Your task to perform on an android device: turn off airplane mode Image 0: 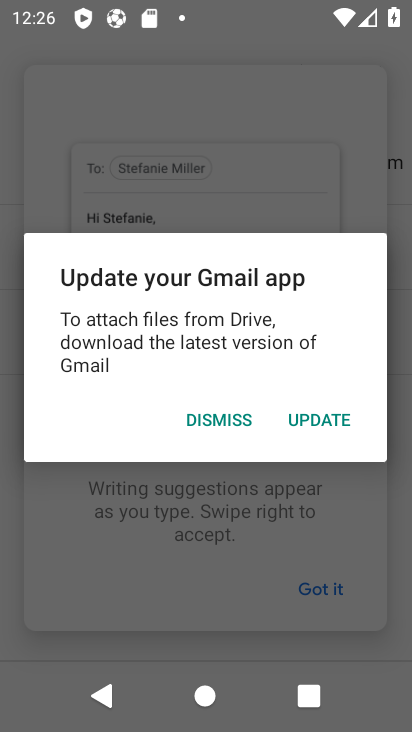
Step 0: press home button
Your task to perform on an android device: turn off airplane mode Image 1: 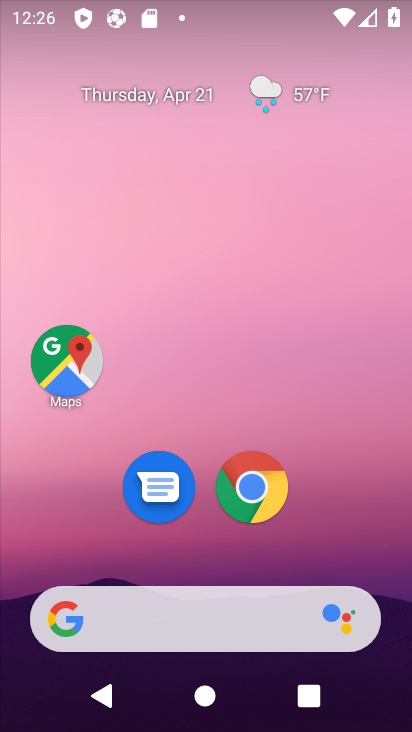
Step 1: drag from (381, 546) to (346, 130)
Your task to perform on an android device: turn off airplane mode Image 2: 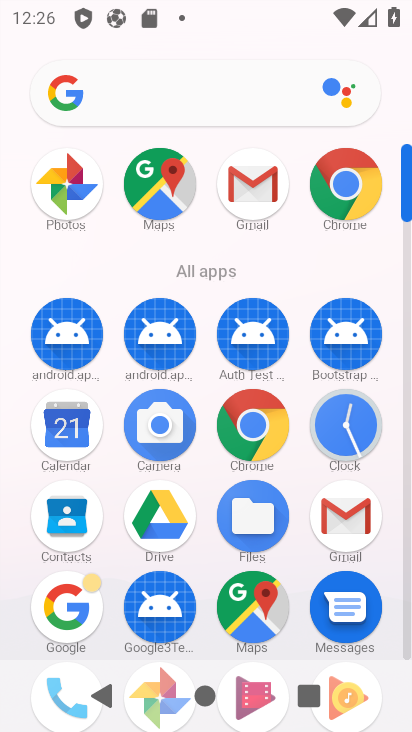
Step 2: drag from (294, 478) to (289, 254)
Your task to perform on an android device: turn off airplane mode Image 3: 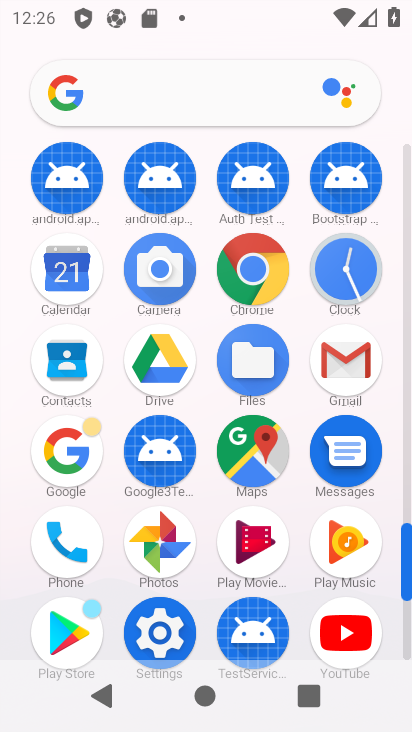
Step 3: click (146, 632)
Your task to perform on an android device: turn off airplane mode Image 4: 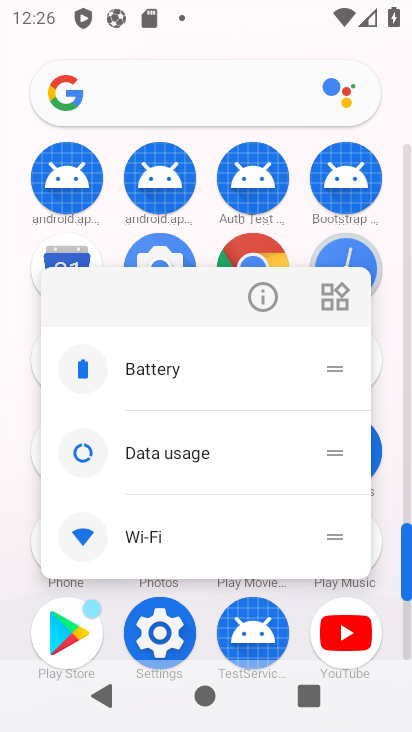
Step 4: click (144, 633)
Your task to perform on an android device: turn off airplane mode Image 5: 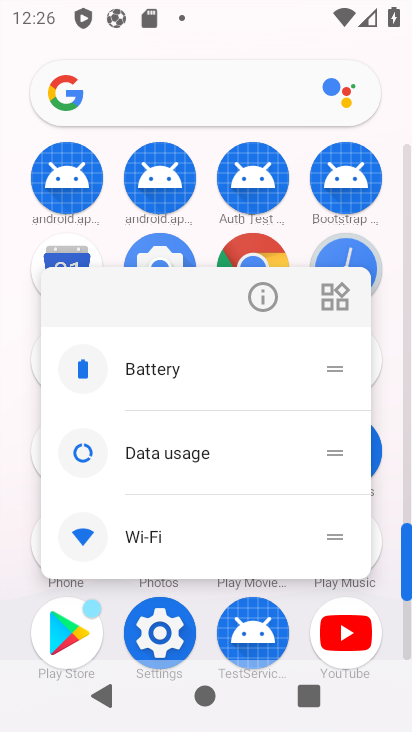
Step 5: click (156, 633)
Your task to perform on an android device: turn off airplane mode Image 6: 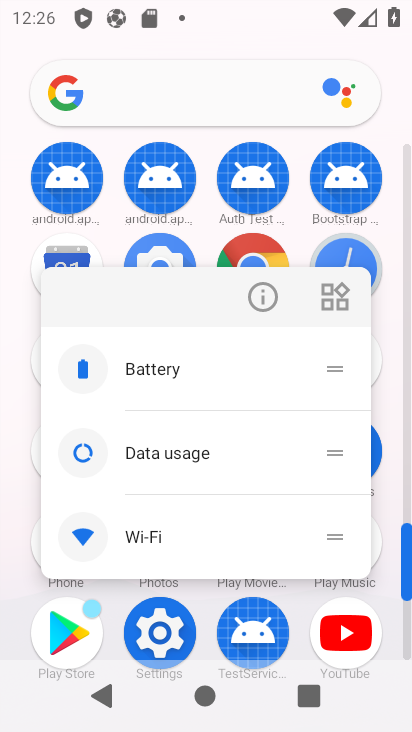
Step 6: click (167, 644)
Your task to perform on an android device: turn off airplane mode Image 7: 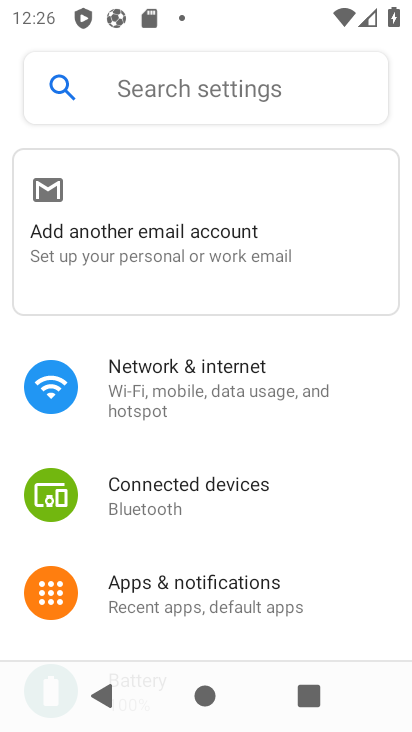
Step 7: click (233, 393)
Your task to perform on an android device: turn off airplane mode Image 8: 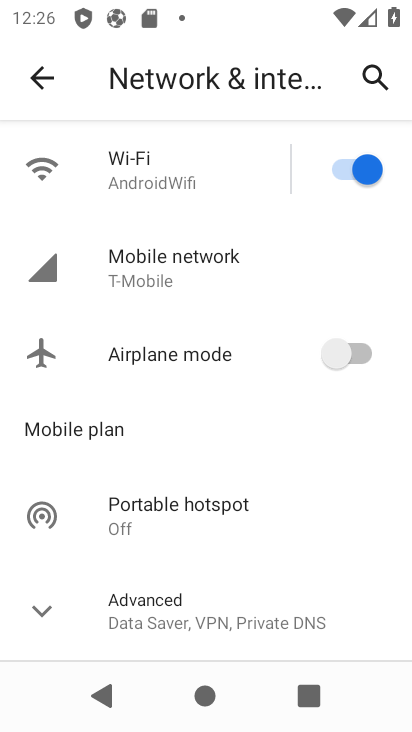
Step 8: task complete